Your task to perform on an android device: check android version Image 0: 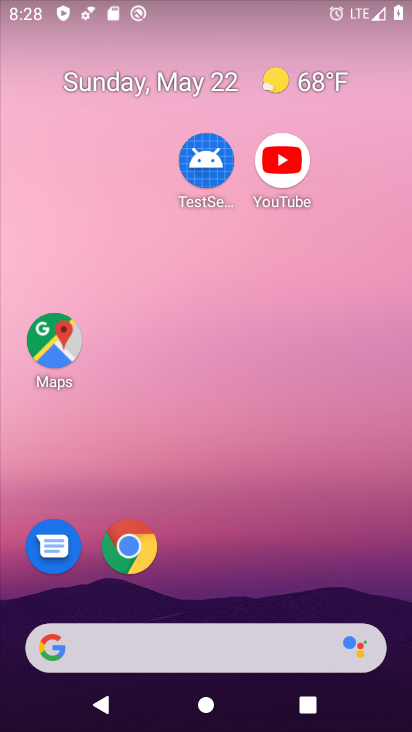
Step 0: drag from (219, 616) to (113, 135)
Your task to perform on an android device: check android version Image 1: 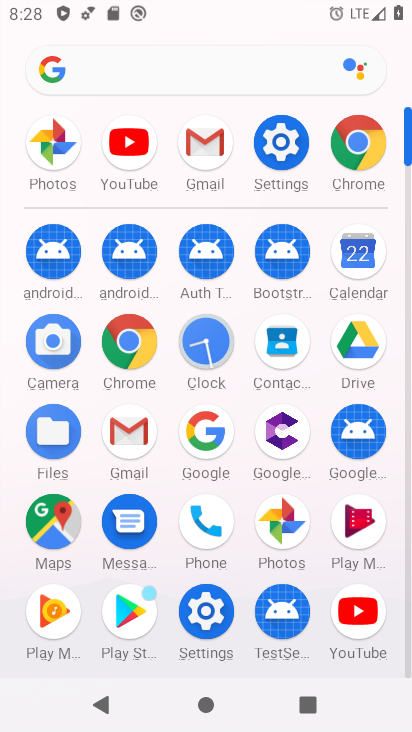
Step 1: click (275, 150)
Your task to perform on an android device: check android version Image 2: 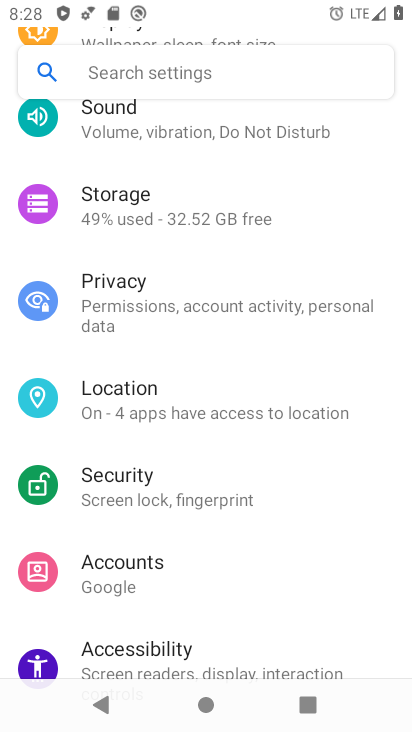
Step 2: drag from (168, 562) to (145, 230)
Your task to perform on an android device: check android version Image 3: 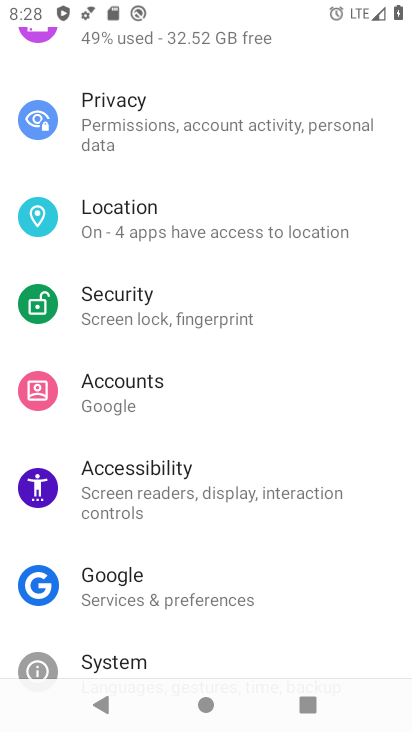
Step 3: drag from (185, 468) to (173, 153)
Your task to perform on an android device: check android version Image 4: 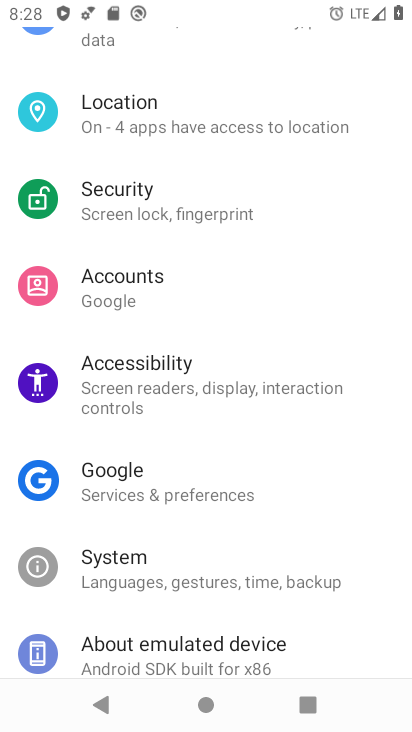
Step 4: drag from (169, 566) to (164, 278)
Your task to perform on an android device: check android version Image 5: 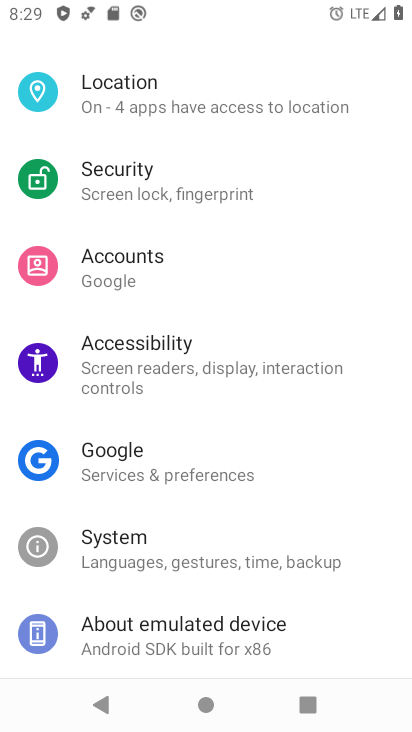
Step 5: click (139, 654)
Your task to perform on an android device: check android version Image 6: 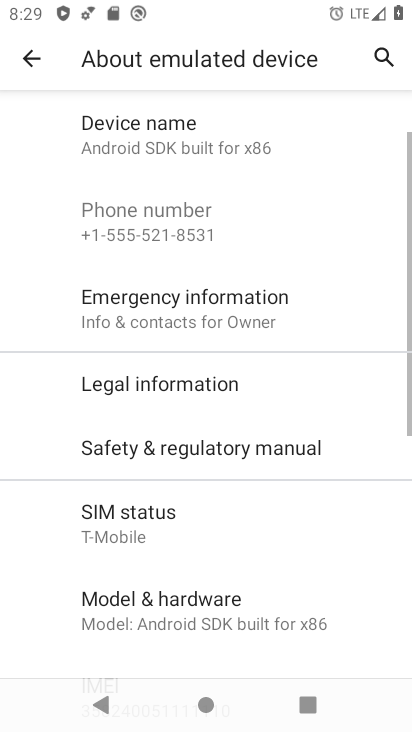
Step 6: task complete